Your task to perform on an android device: refresh tabs in the chrome app Image 0: 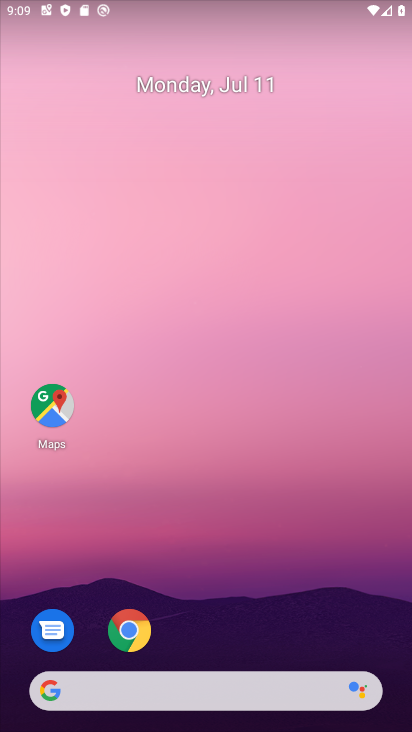
Step 0: click (111, 619)
Your task to perform on an android device: refresh tabs in the chrome app Image 1: 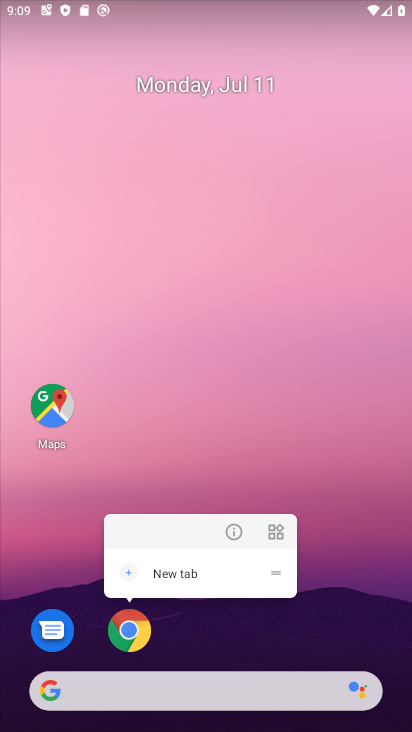
Step 1: click (227, 622)
Your task to perform on an android device: refresh tabs in the chrome app Image 2: 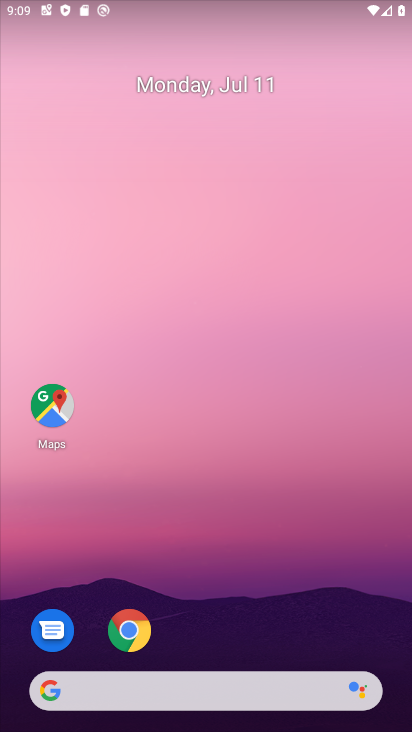
Step 2: drag from (227, 628) to (278, 82)
Your task to perform on an android device: refresh tabs in the chrome app Image 3: 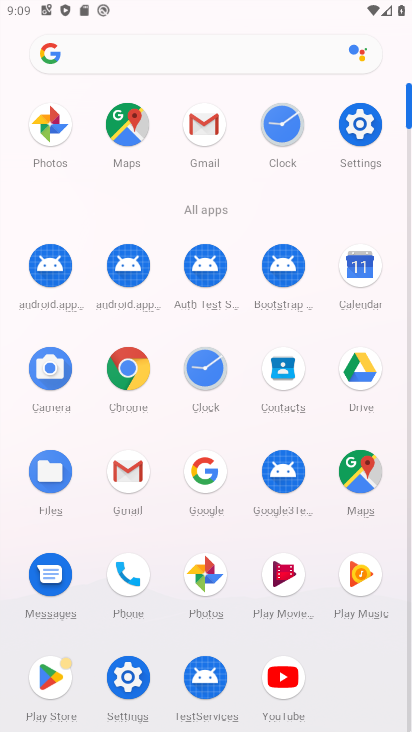
Step 3: click (120, 358)
Your task to perform on an android device: refresh tabs in the chrome app Image 4: 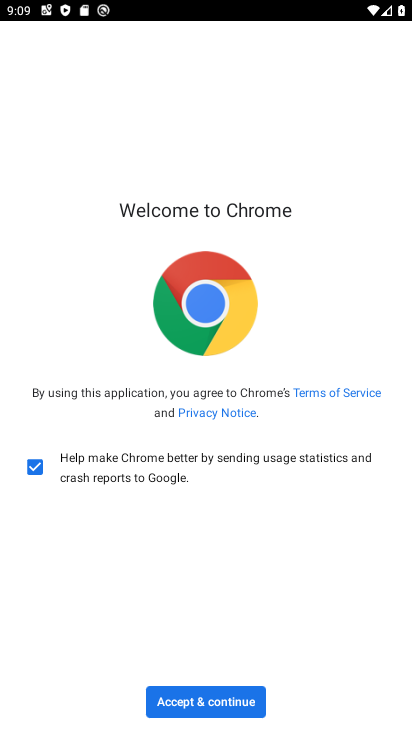
Step 4: click (208, 706)
Your task to perform on an android device: refresh tabs in the chrome app Image 5: 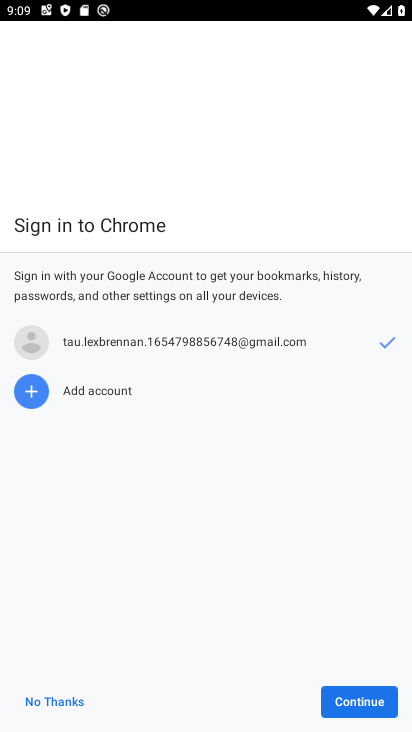
Step 5: click (394, 692)
Your task to perform on an android device: refresh tabs in the chrome app Image 6: 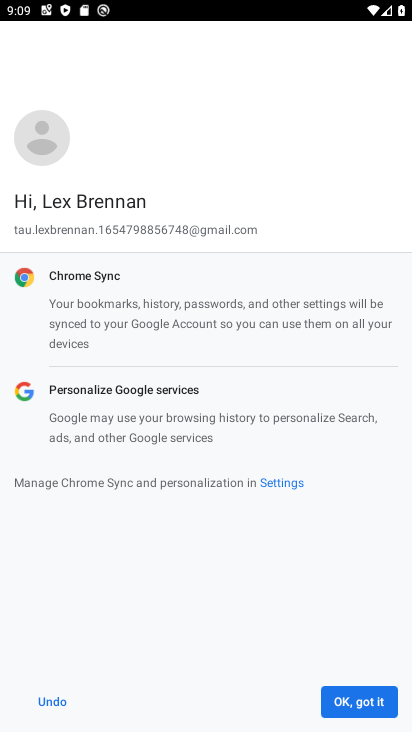
Step 6: click (376, 692)
Your task to perform on an android device: refresh tabs in the chrome app Image 7: 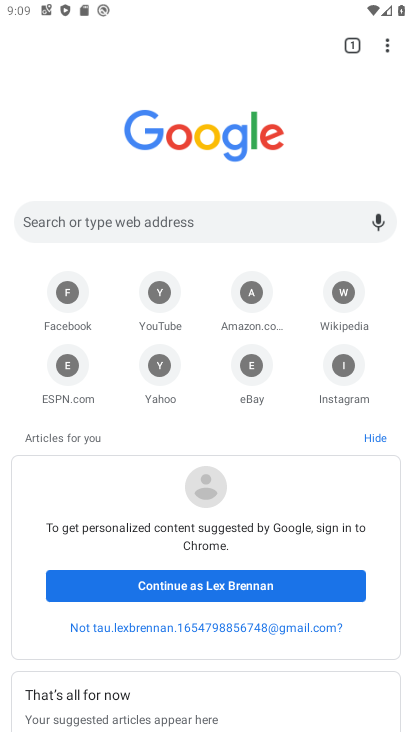
Step 7: click (382, 41)
Your task to perform on an android device: refresh tabs in the chrome app Image 8: 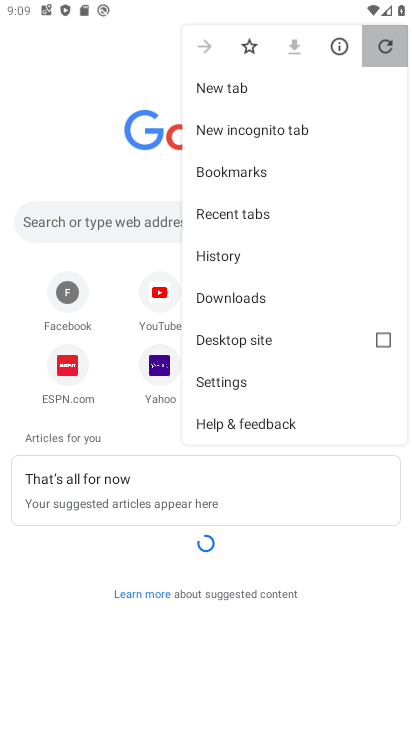
Step 8: click (380, 48)
Your task to perform on an android device: refresh tabs in the chrome app Image 9: 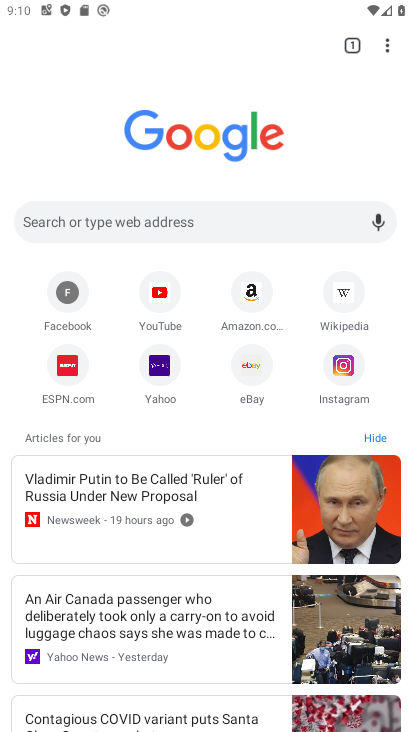
Step 9: task complete